Your task to perform on an android device: create a new album in the google photos Image 0: 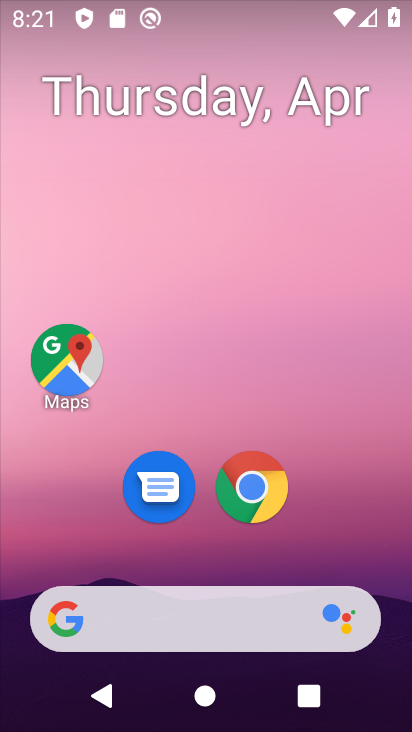
Step 0: drag from (209, 565) to (234, 28)
Your task to perform on an android device: create a new album in the google photos Image 1: 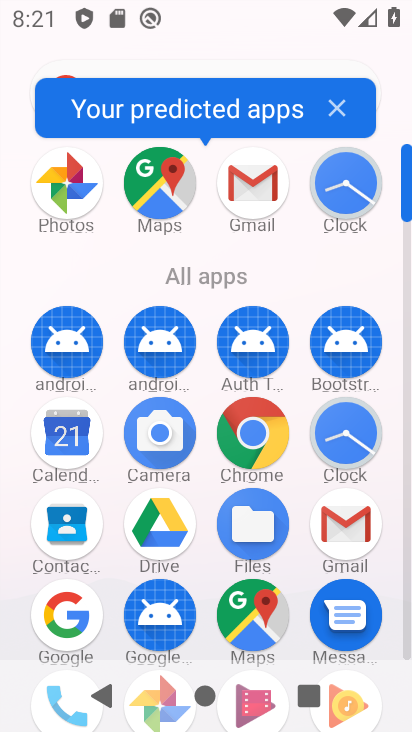
Step 1: click (80, 188)
Your task to perform on an android device: create a new album in the google photos Image 2: 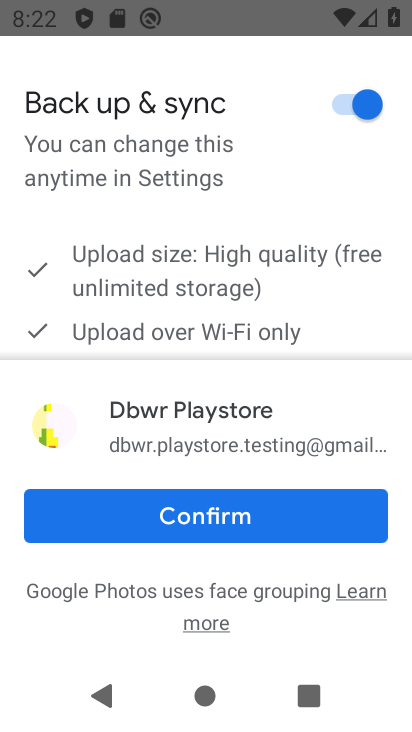
Step 2: click (235, 529)
Your task to perform on an android device: create a new album in the google photos Image 3: 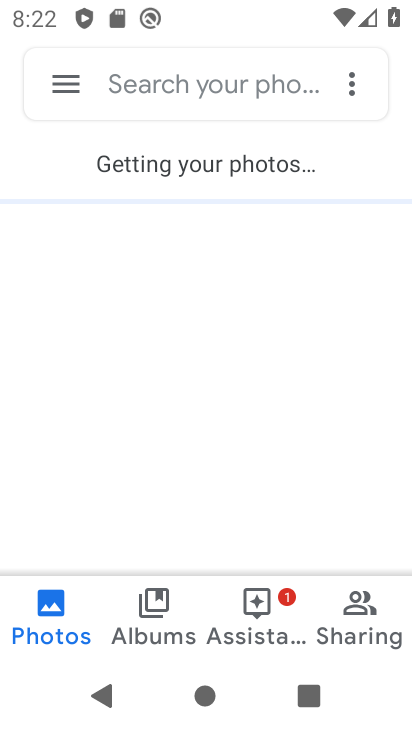
Step 3: click (353, 83)
Your task to perform on an android device: create a new album in the google photos Image 4: 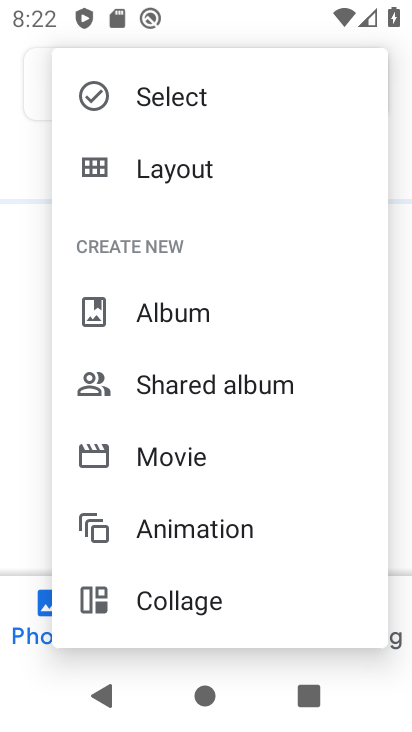
Step 4: click (168, 321)
Your task to perform on an android device: create a new album in the google photos Image 5: 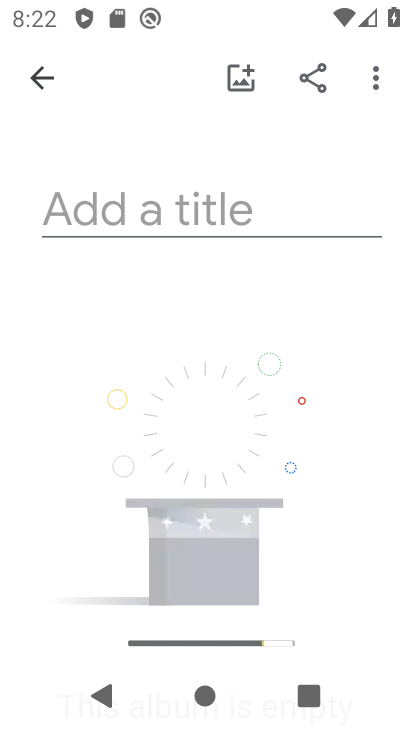
Step 5: click (194, 222)
Your task to perform on an android device: create a new album in the google photos Image 6: 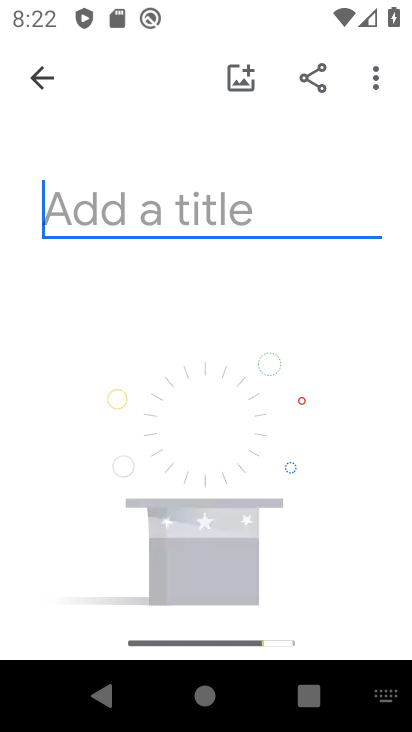
Step 6: type "fgnghn"
Your task to perform on an android device: create a new album in the google photos Image 7: 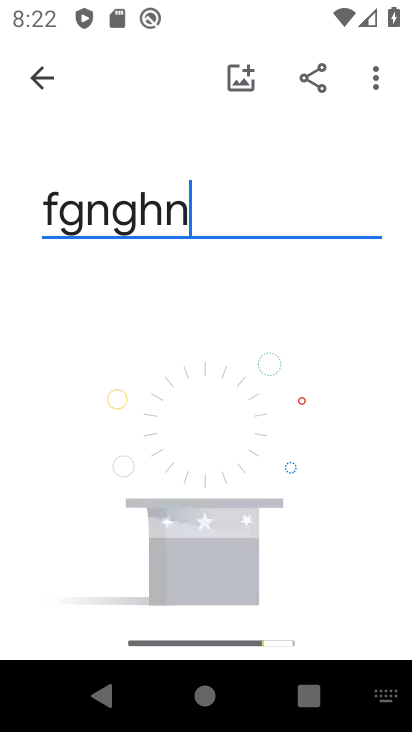
Step 7: drag from (263, 247) to (275, 186)
Your task to perform on an android device: create a new album in the google photos Image 8: 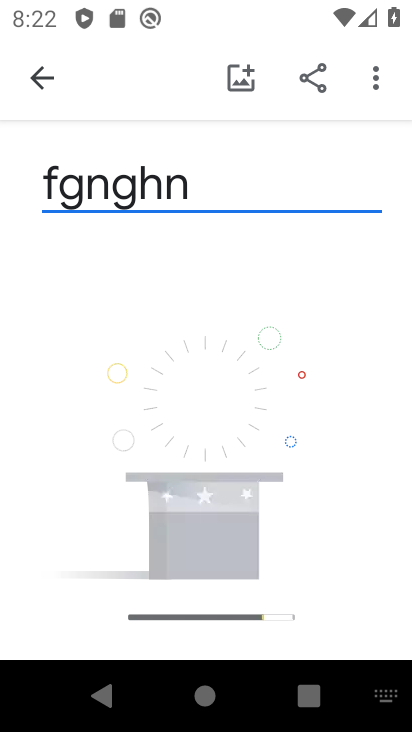
Step 8: drag from (219, 482) to (228, 207)
Your task to perform on an android device: create a new album in the google photos Image 9: 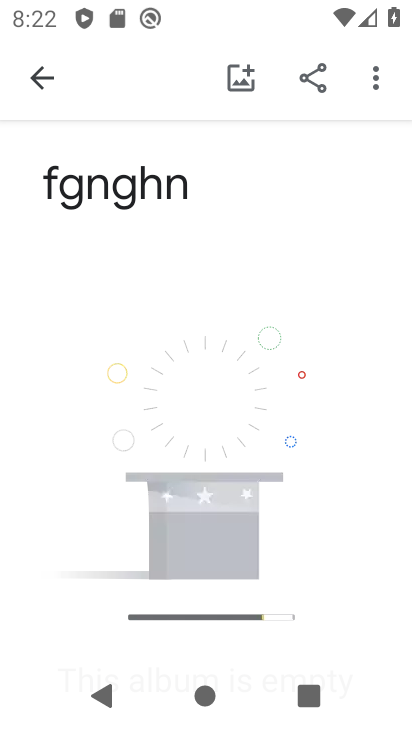
Step 9: drag from (192, 568) to (206, 297)
Your task to perform on an android device: create a new album in the google photos Image 10: 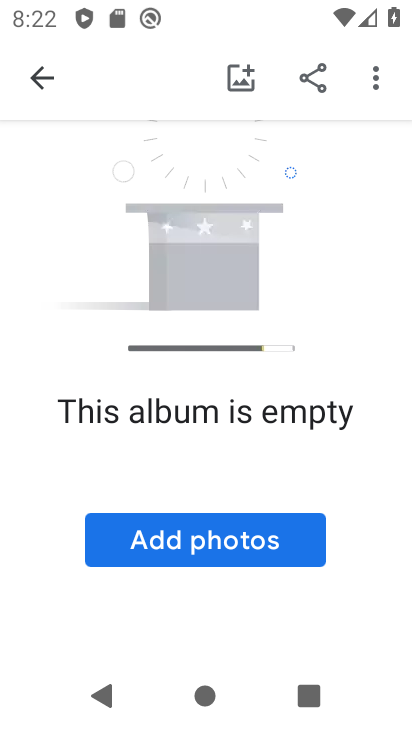
Step 10: click (184, 544)
Your task to perform on an android device: create a new album in the google photos Image 11: 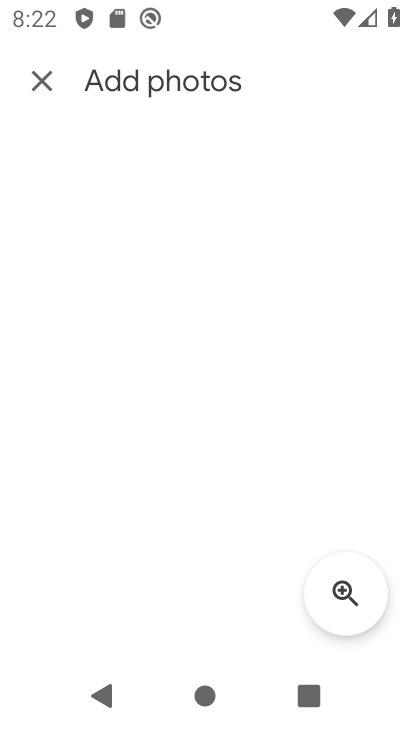
Step 11: drag from (222, 551) to (202, 620)
Your task to perform on an android device: create a new album in the google photos Image 12: 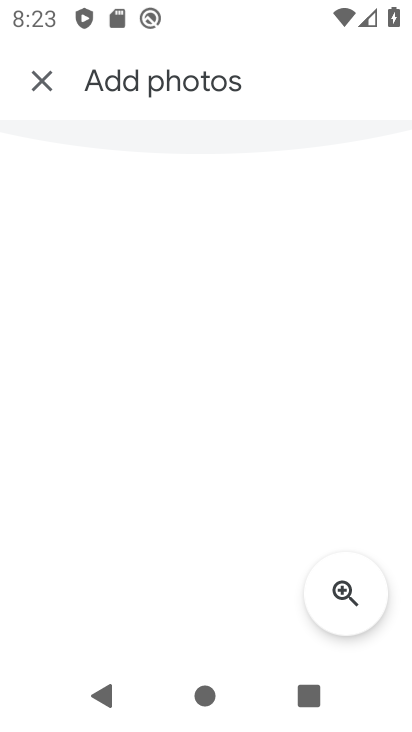
Step 12: drag from (228, 516) to (209, 597)
Your task to perform on an android device: create a new album in the google photos Image 13: 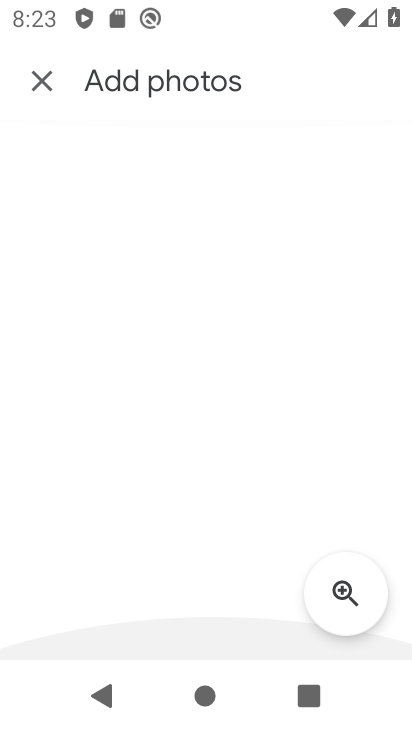
Step 13: drag from (200, 514) to (200, 591)
Your task to perform on an android device: create a new album in the google photos Image 14: 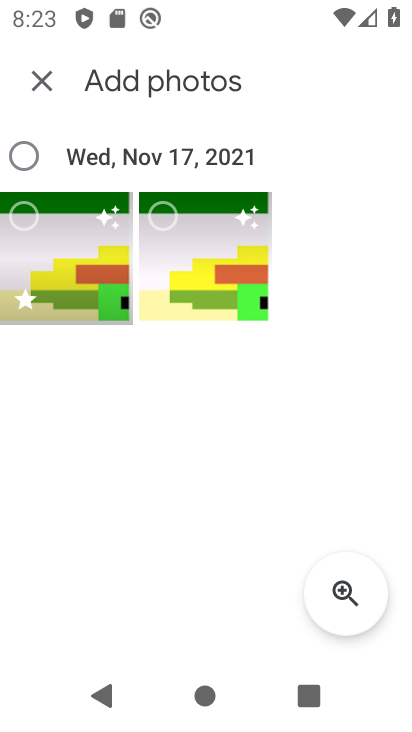
Step 14: click (170, 216)
Your task to perform on an android device: create a new album in the google photos Image 15: 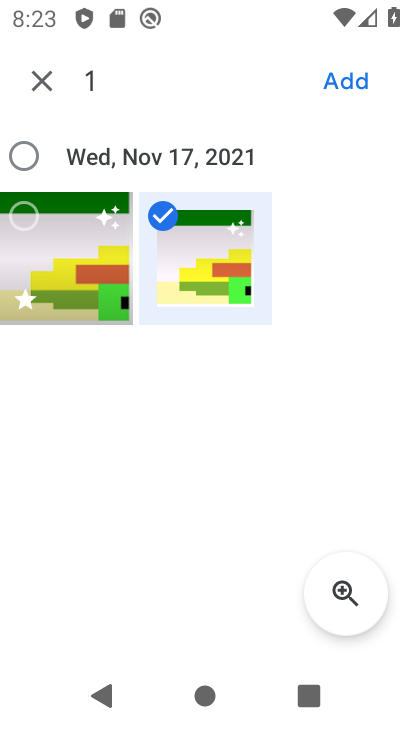
Step 15: click (357, 84)
Your task to perform on an android device: create a new album in the google photos Image 16: 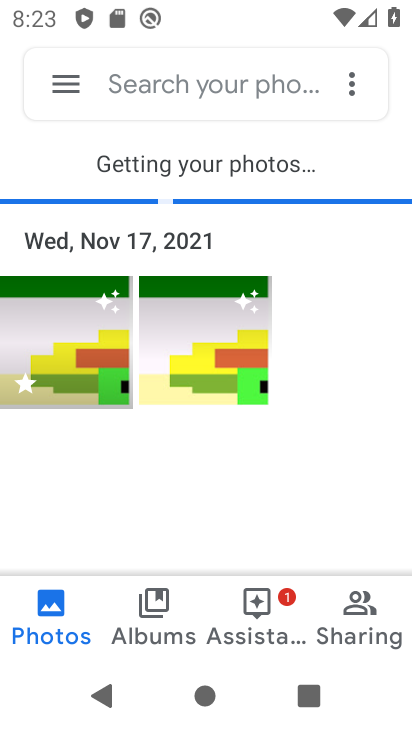
Step 16: click (351, 77)
Your task to perform on an android device: create a new album in the google photos Image 17: 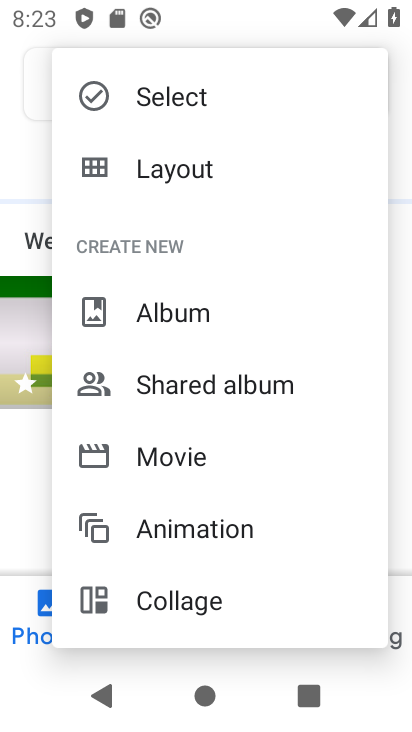
Step 17: click (215, 303)
Your task to perform on an android device: create a new album in the google photos Image 18: 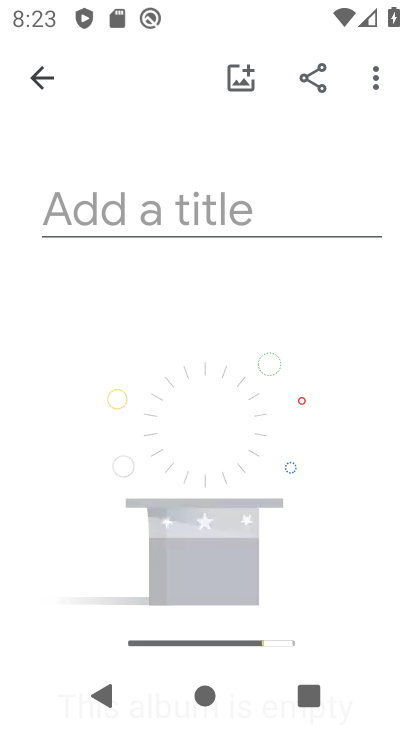
Step 18: click (131, 196)
Your task to perform on an android device: create a new album in the google photos Image 19: 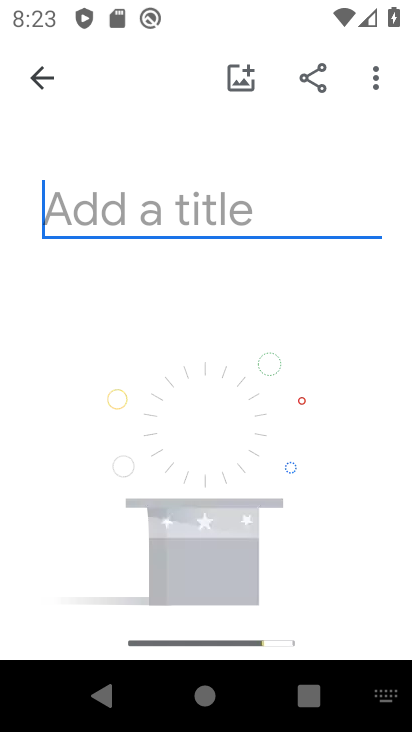
Step 19: type "gfnfgn"
Your task to perform on an android device: create a new album in the google photos Image 20: 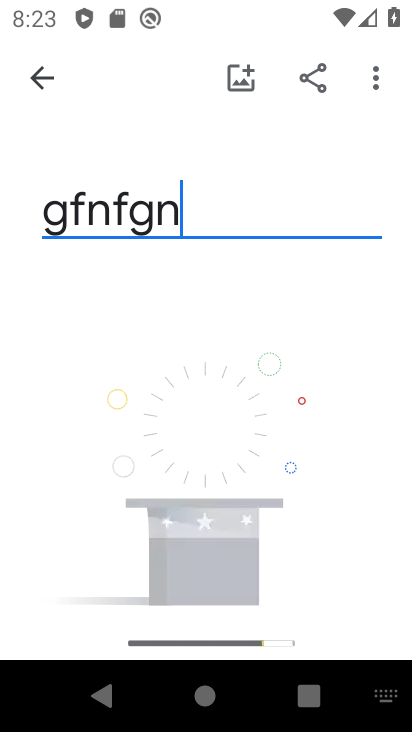
Step 20: drag from (278, 530) to (308, 116)
Your task to perform on an android device: create a new album in the google photos Image 21: 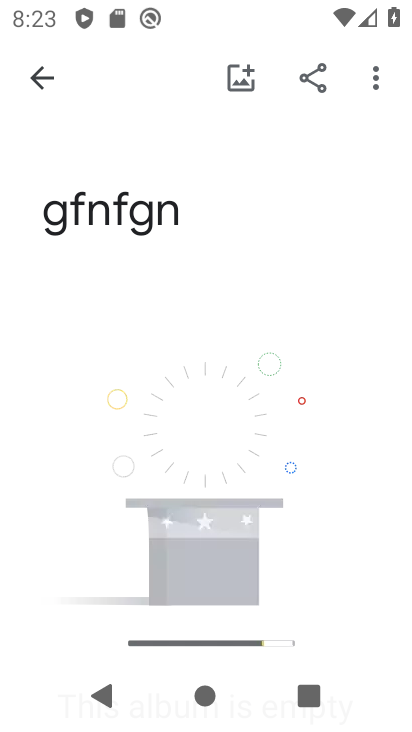
Step 21: drag from (266, 368) to (275, 154)
Your task to perform on an android device: create a new album in the google photos Image 22: 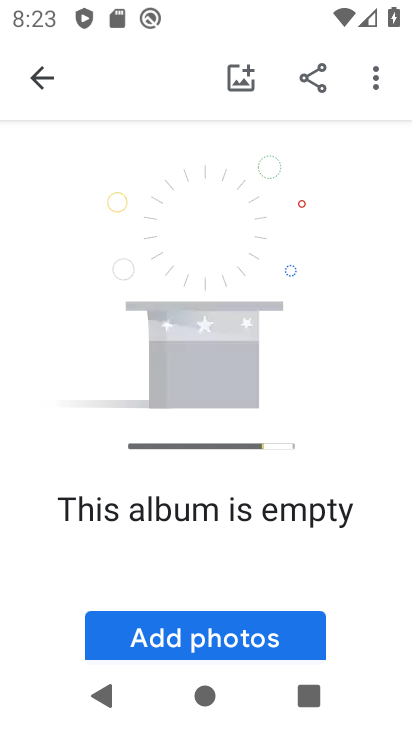
Step 22: drag from (278, 534) to (278, 337)
Your task to perform on an android device: create a new album in the google photos Image 23: 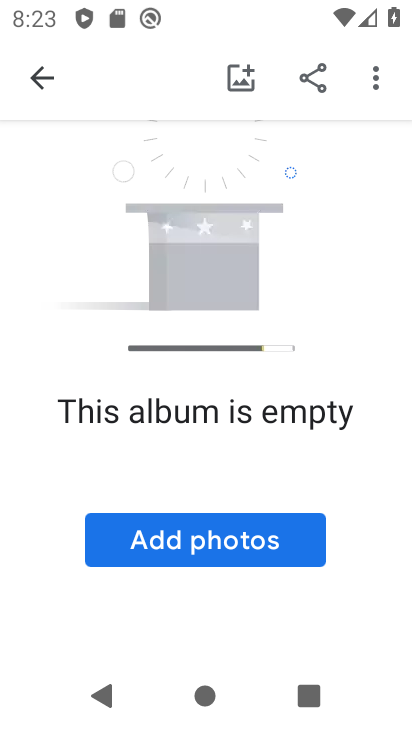
Step 23: click (210, 532)
Your task to perform on an android device: create a new album in the google photos Image 24: 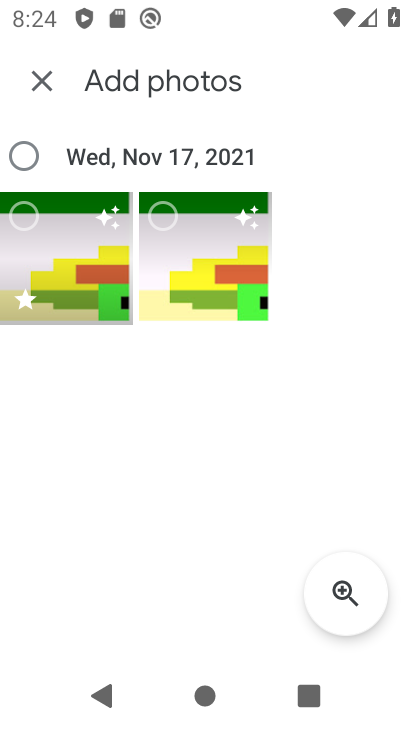
Step 24: click (171, 208)
Your task to perform on an android device: create a new album in the google photos Image 25: 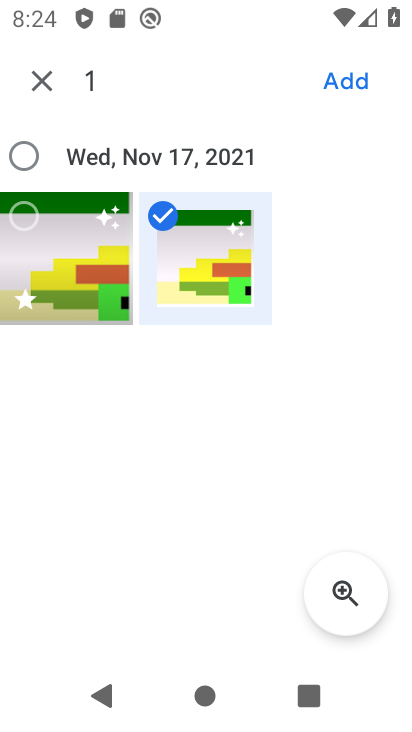
Step 25: click (354, 73)
Your task to perform on an android device: create a new album in the google photos Image 26: 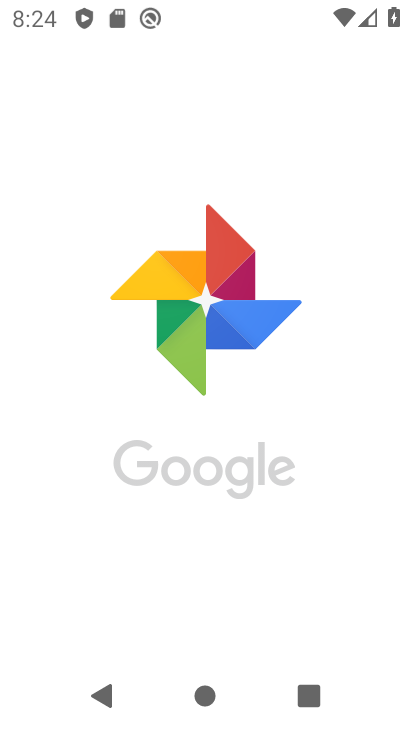
Step 26: task complete